Your task to perform on an android device: Open calendar and show me the first week of next month Image 0: 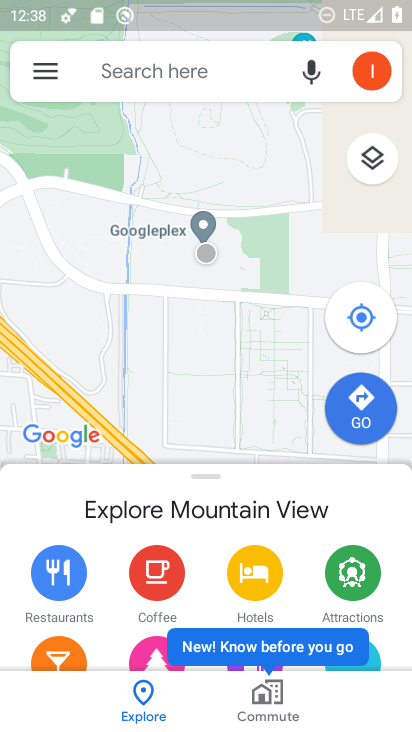
Step 0: press home button
Your task to perform on an android device: Open calendar and show me the first week of next month Image 1: 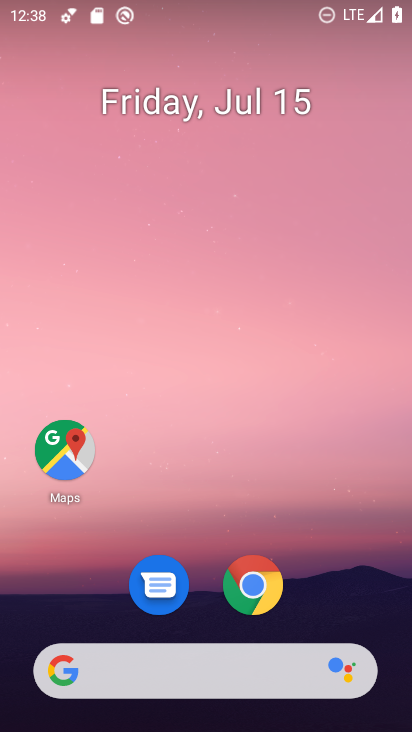
Step 1: drag from (315, 554) to (346, 16)
Your task to perform on an android device: Open calendar and show me the first week of next month Image 2: 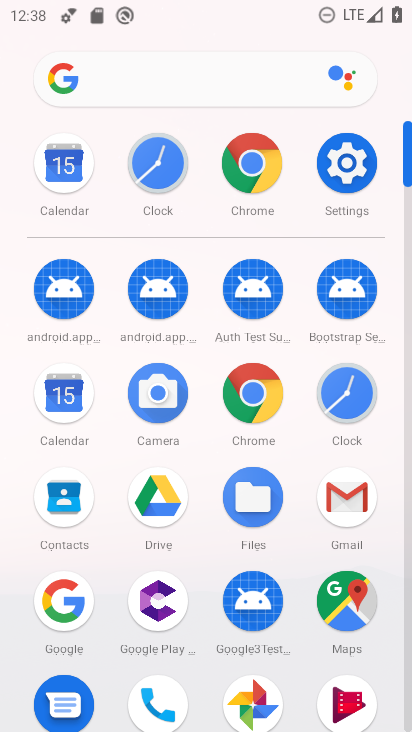
Step 2: click (63, 166)
Your task to perform on an android device: Open calendar and show me the first week of next month Image 3: 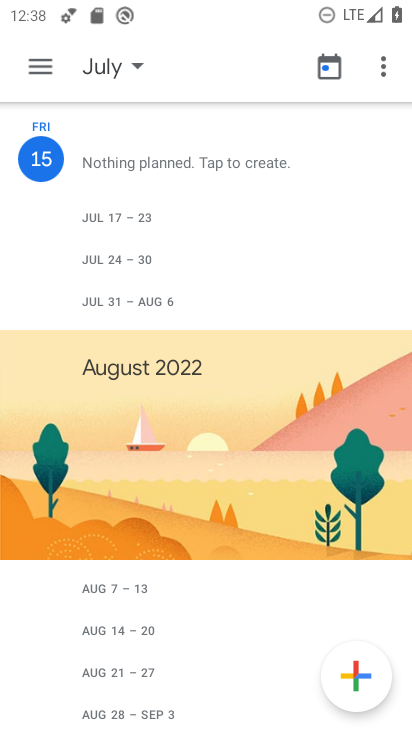
Step 3: click (38, 68)
Your task to perform on an android device: Open calendar and show me the first week of next month Image 4: 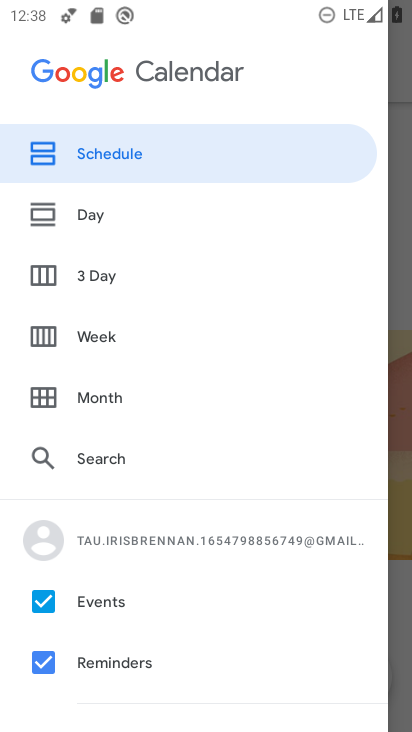
Step 4: click (49, 391)
Your task to perform on an android device: Open calendar and show me the first week of next month Image 5: 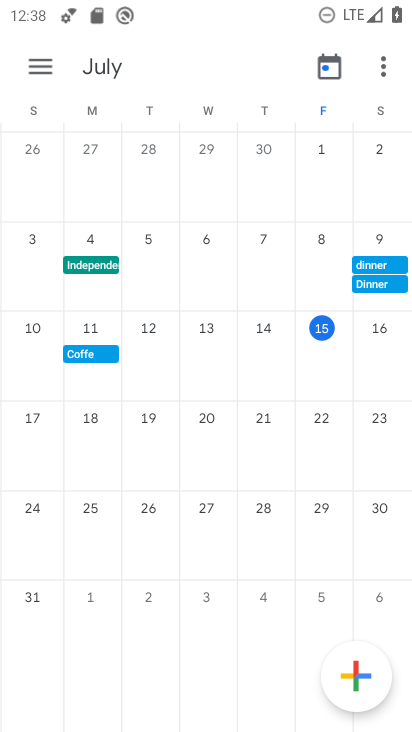
Step 5: drag from (311, 420) to (0, 332)
Your task to perform on an android device: Open calendar and show me the first week of next month Image 6: 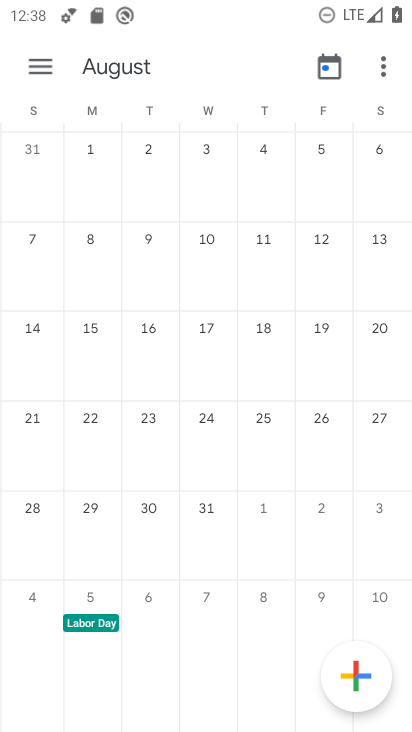
Step 6: click (33, 243)
Your task to perform on an android device: Open calendar and show me the first week of next month Image 7: 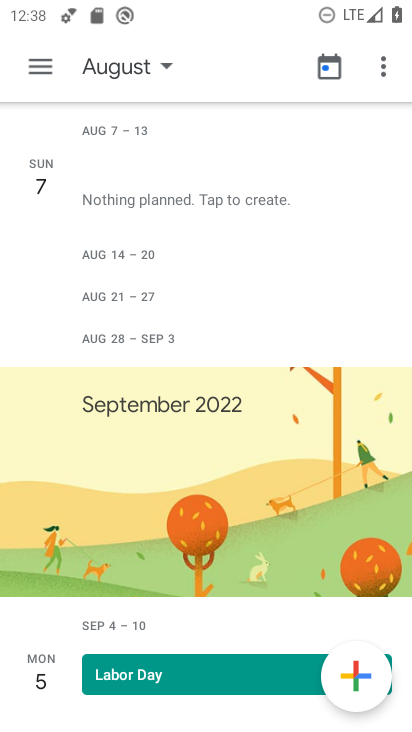
Step 7: click (40, 68)
Your task to perform on an android device: Open calendar and show me the first week of next month Image 8: 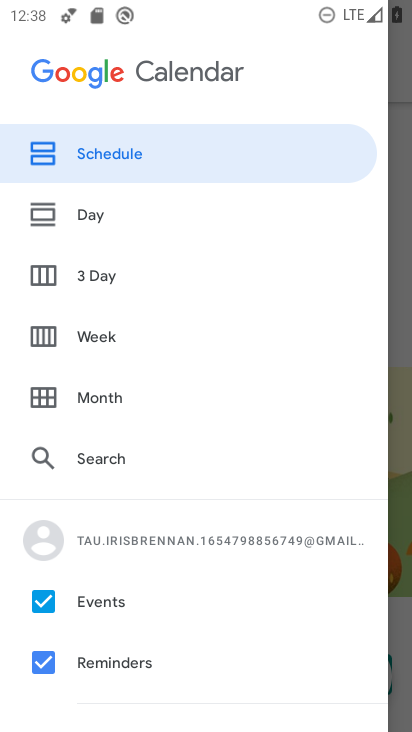
Step 8: click (45, 335)
Your task to perform on an android device: Open calendar and show me the first week of next month Image 9: 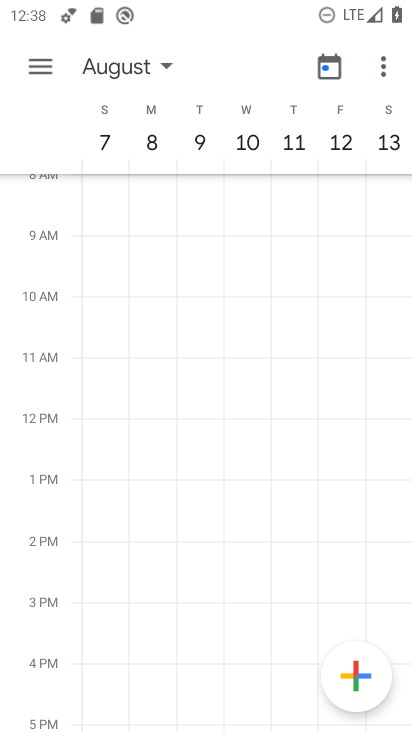
Step 9: task complete